Your task to perform on an android device: toggle data saver in the chrome app Image 0: 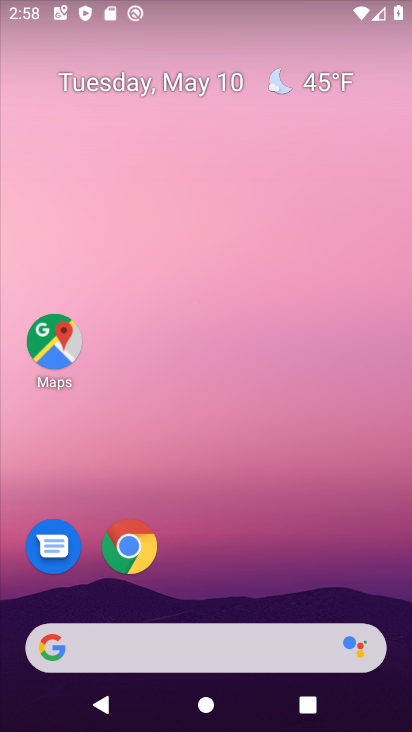
Step 0: drag from (267, 526) to (243, 77)
Your task to perform on an android device: toggle data saver in the chrome app Image 1: 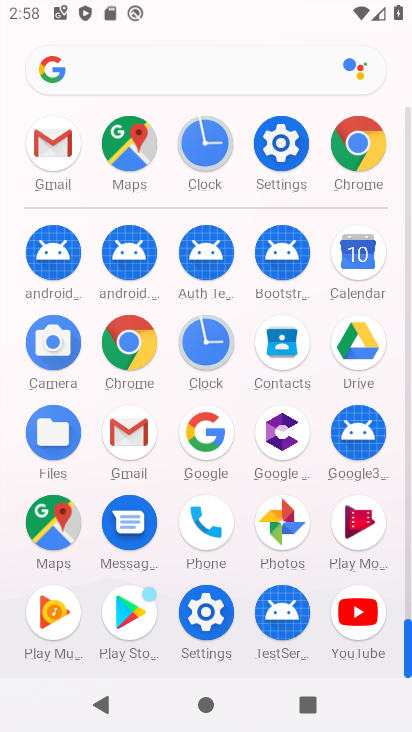
Step 1: click (130, 341)
Your task to perform on an android device: toggle data saver in the chrome app Image 2: 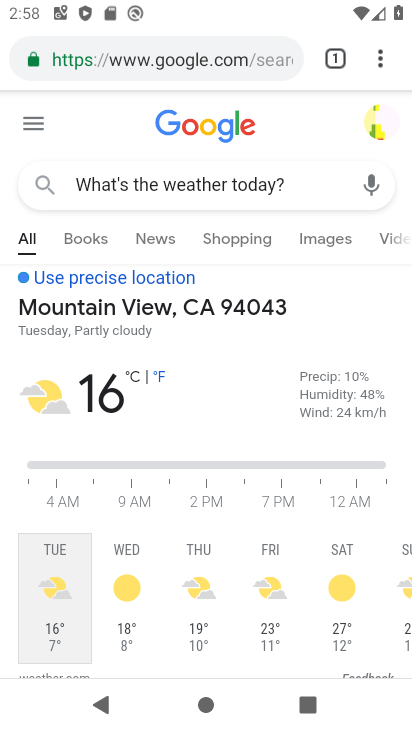
Step 2: drag from (382, 60) to (192, 573)
Your task to perform on an android device: toggle data saver in the chrome app Image 3: 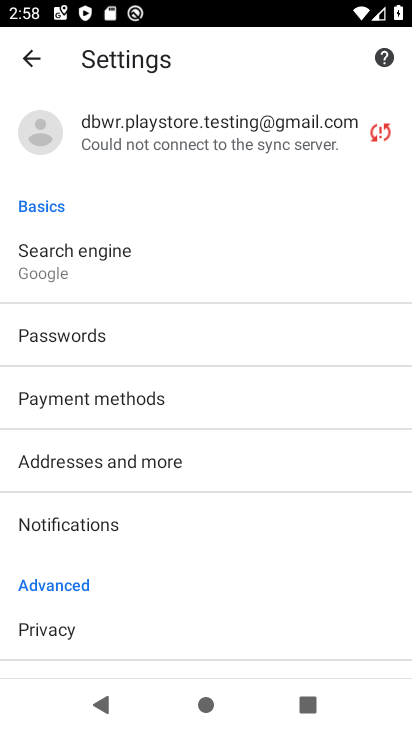
Step 3: drag from (190, 598) to (236, 281)
Your task to perform on an android device: toggle data saver in the chrome app Image 4: 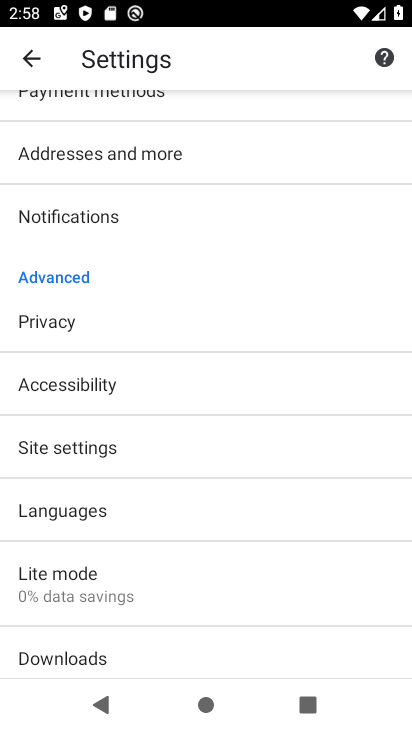
Step 4: click (172, 582)
Your task to perform on an android device: toggle data saver in the chrome app Image 5: 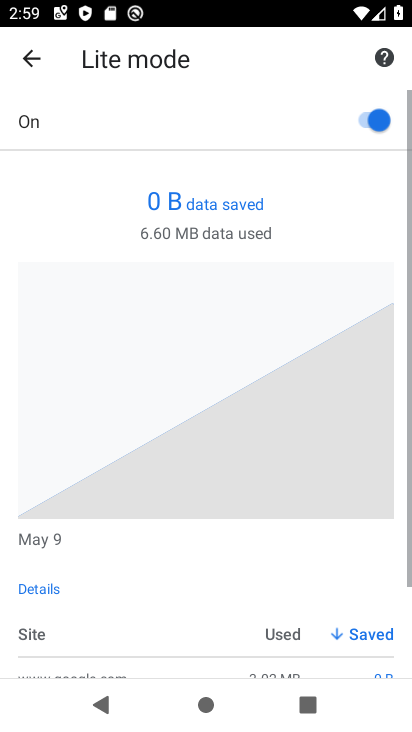
Step 5: click (361, 110)
Your task to perform on an android device: toggle data saver in the chrome app Image 6: 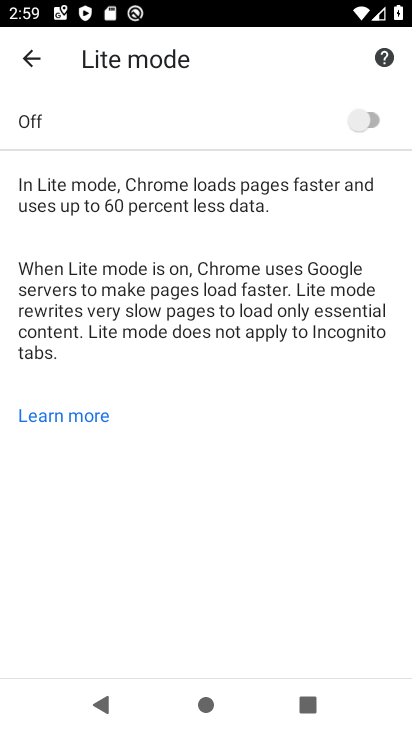
Step 6: task complete